Your task to perform on an android device: Add "alienware aurora" to the cart on amazon Image 0: 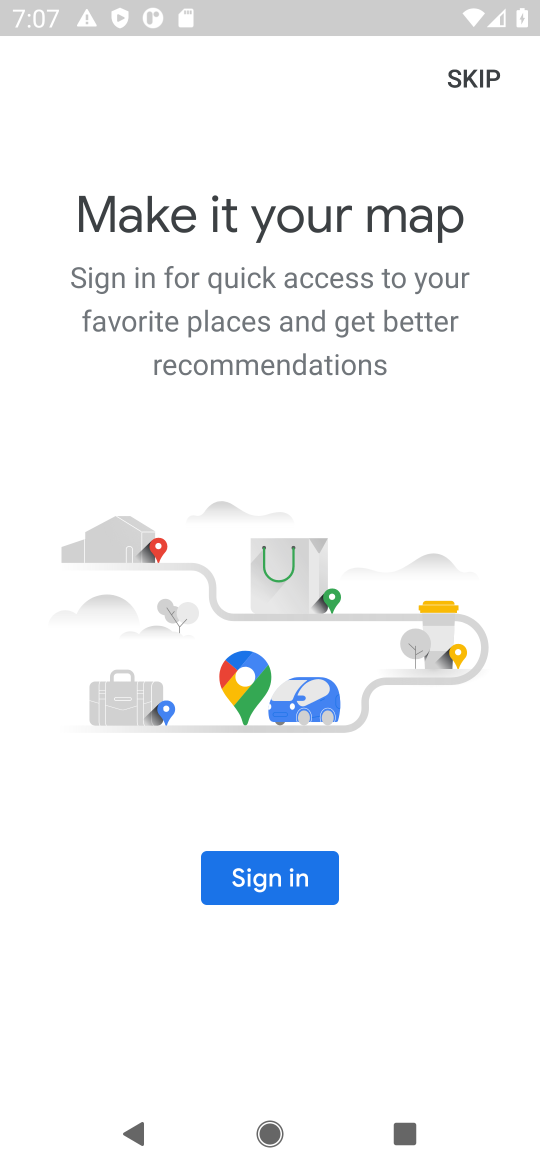
Step 0: press home button
Your task to perform on an android device: Add "alienware aurora" to the cart on amazon Image 1: 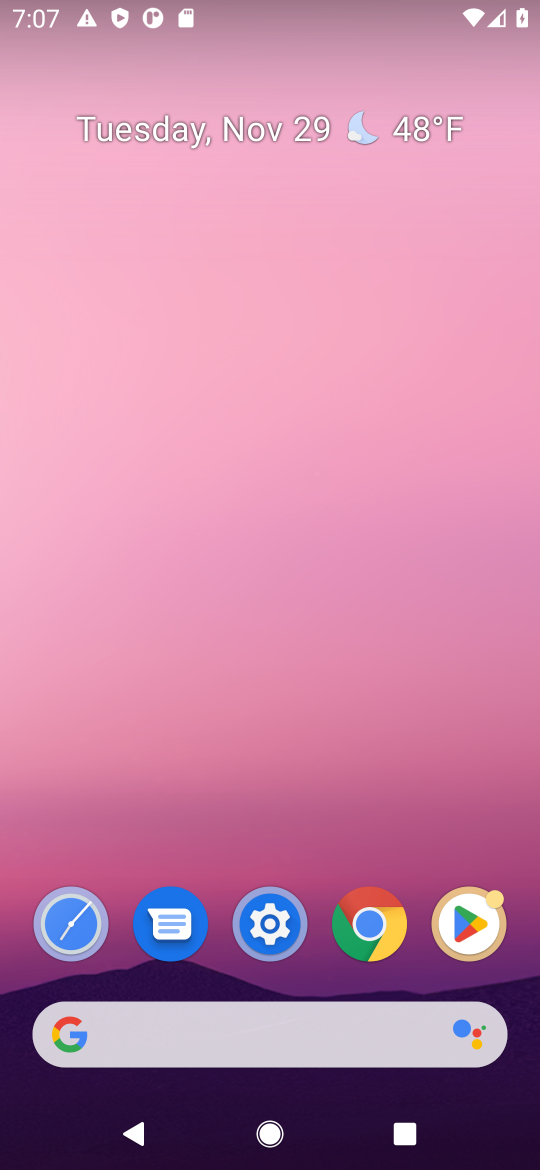
Step 1: click (326, 1026)
Your task to perform on an android device: Add "alienware aurora" to the cart on amazon Image 2: 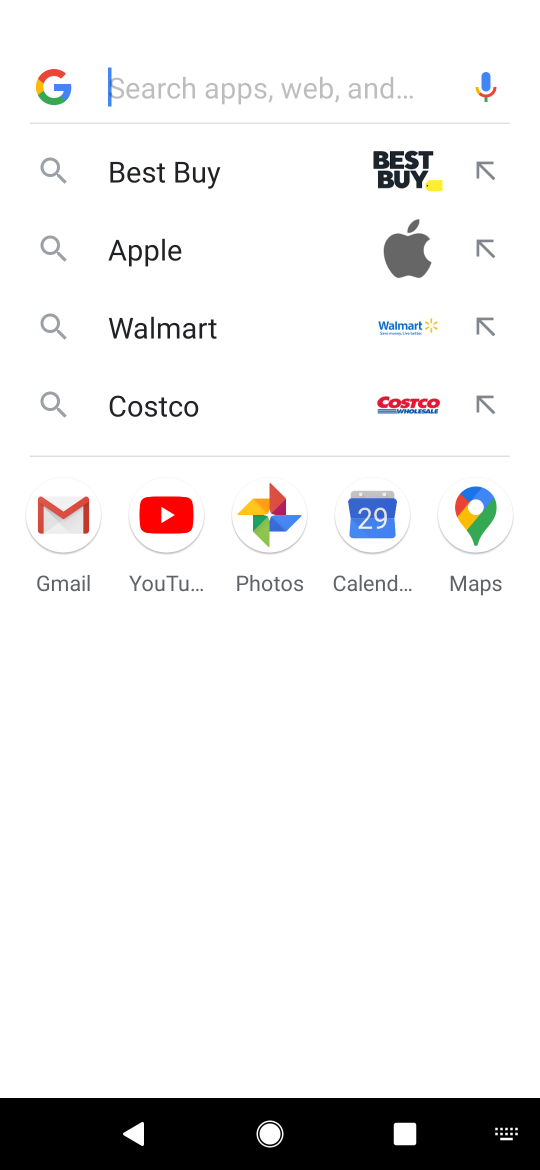
Step 2: type "amazon"
Your task to perform on an android device: Add "alienware aurora" to the cart on amazon Image 3: 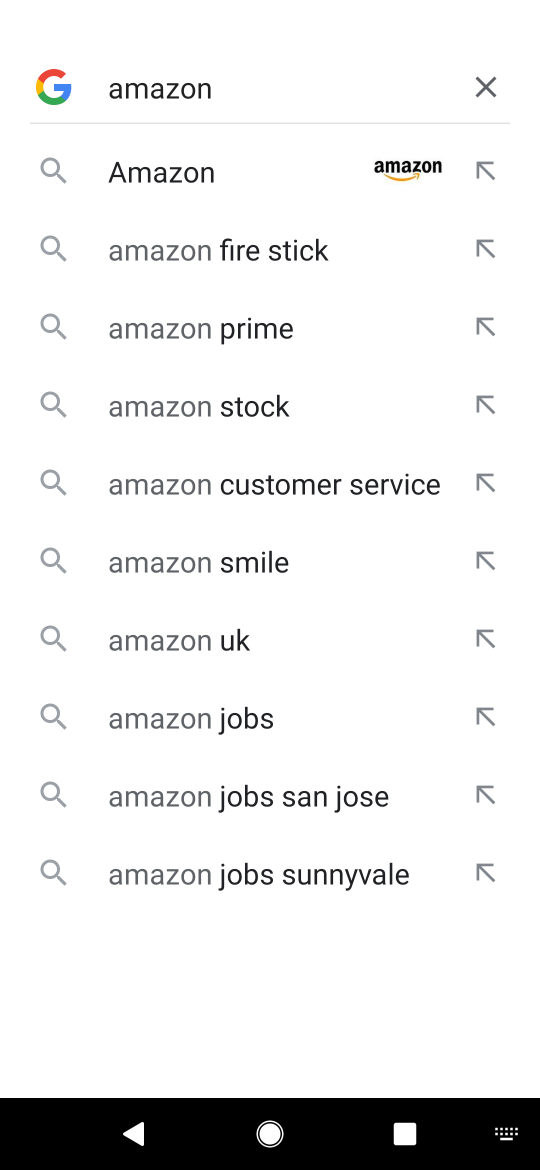
Step 3: click (228, 188)
Your task to perform on an android device: Add "alienware aurora" to the cart on amazon Image 4: 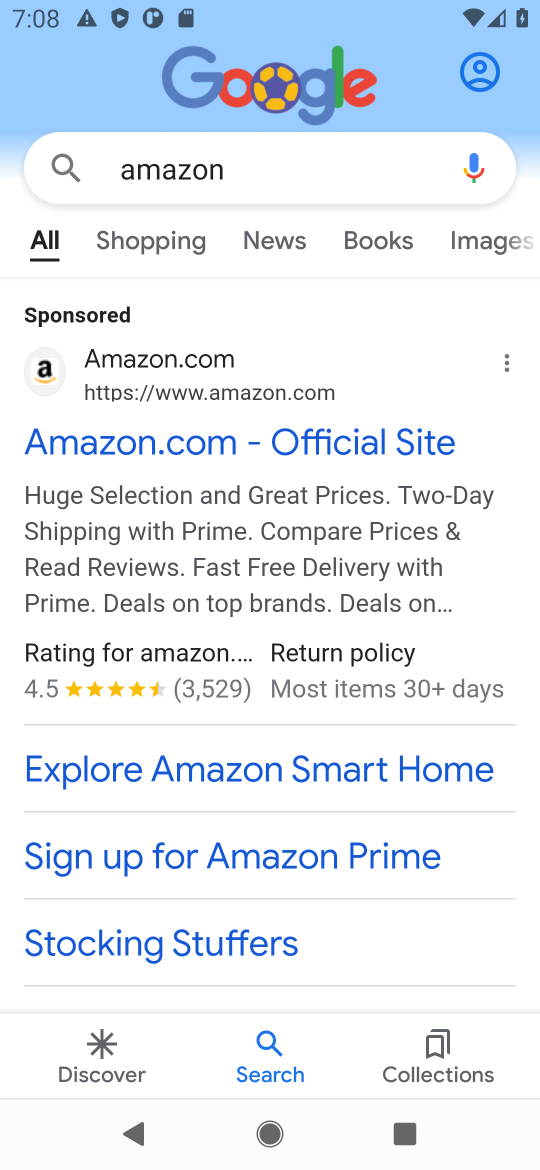
Step 4: click (107, 423)
Your task to perform on an android device: Add "alienware aurora" to the cart on amazon Image 5: 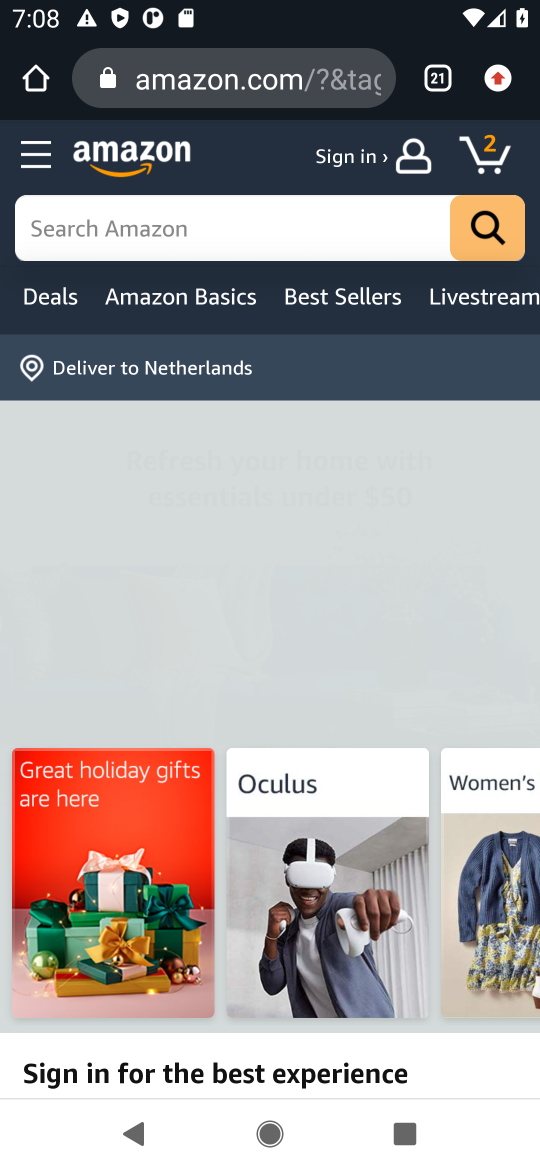
Step 5: click (125, 246)
Your task to perform on an android device: Add "alienware aurora" to the cart on amazon Image 6: 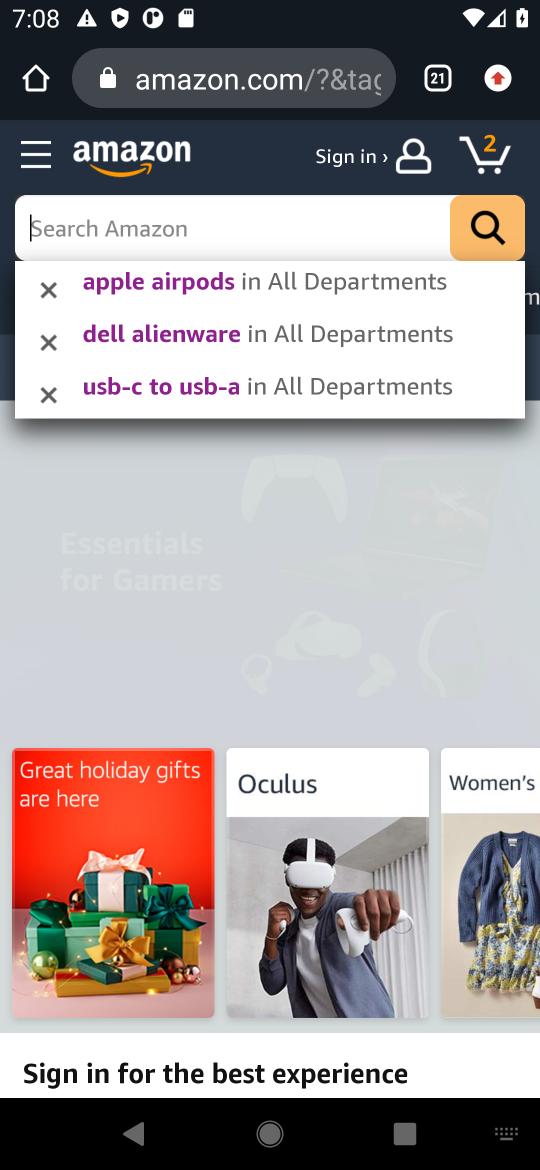
Step 6: type "alienware aura"
Your task to perform on an android device: Add "alienware aurora" to the cart on amazon Image 7: 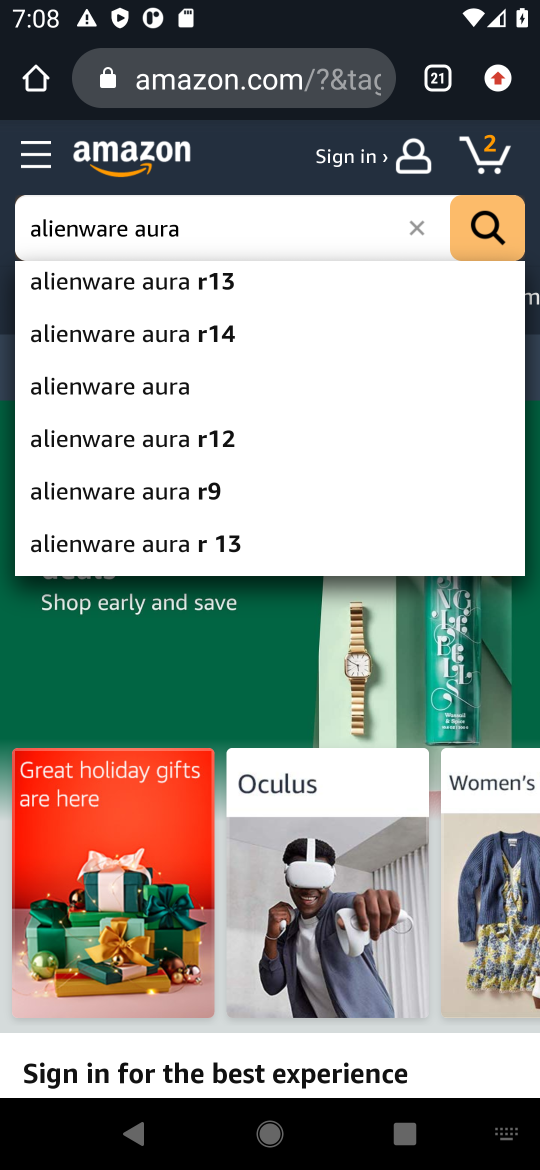
Step 7: click (486, 250)
Your task to perform on an android device: Add "alienware aurora" to the cart on amazon Image 8: 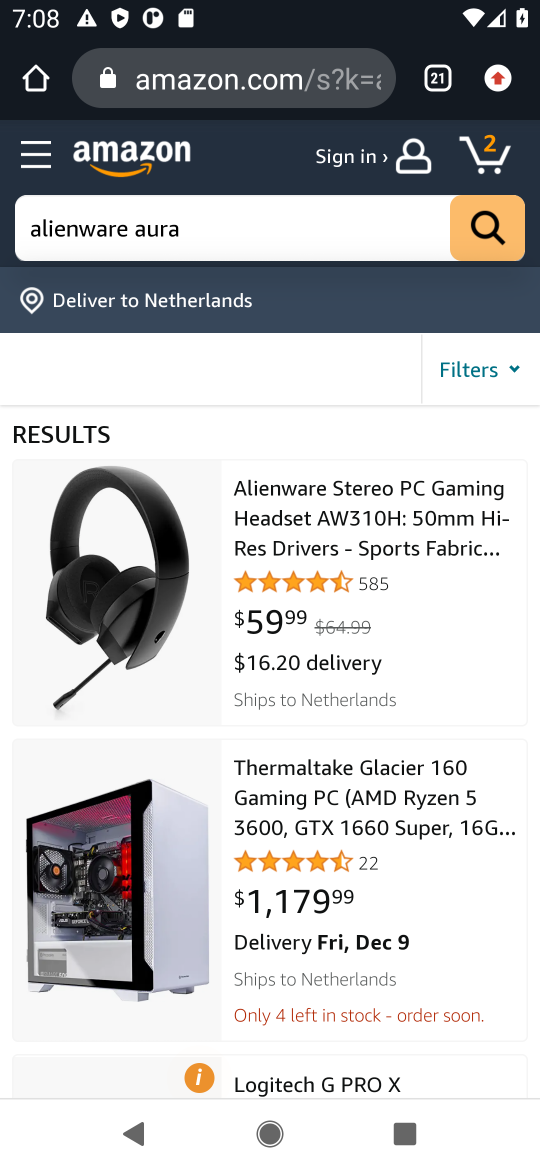
Step 8: click (333, 510)
Your task to perform on an android device: Add "alienware aurora" to the cart on amazon Image 9: 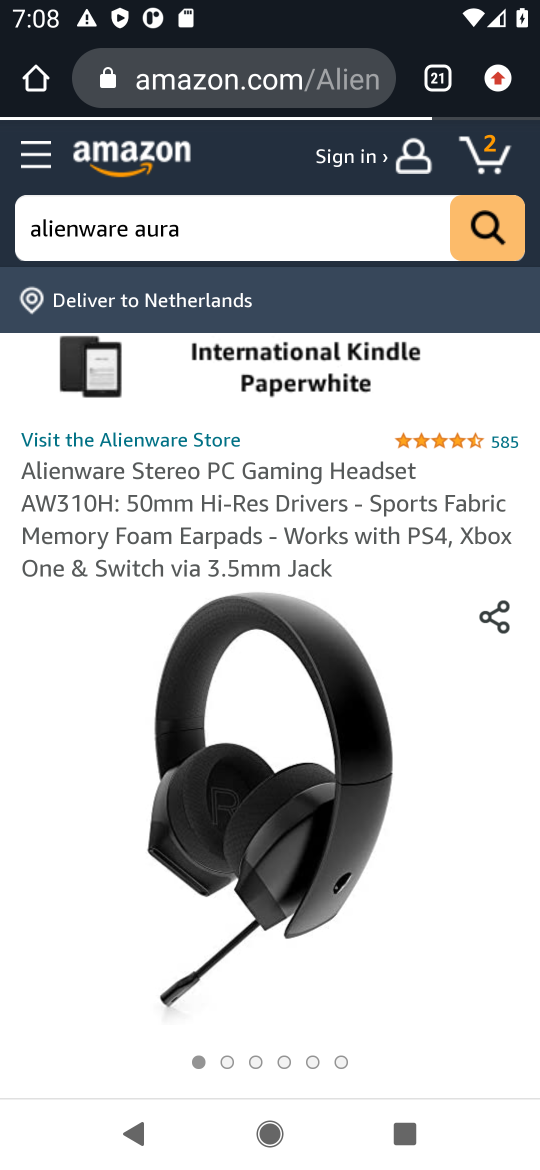
Step 9: drag from (465, 1013) to (401, 656)
Your task to perform on an android device: Add "alienware aurora" to the cart on amazon Image 10: 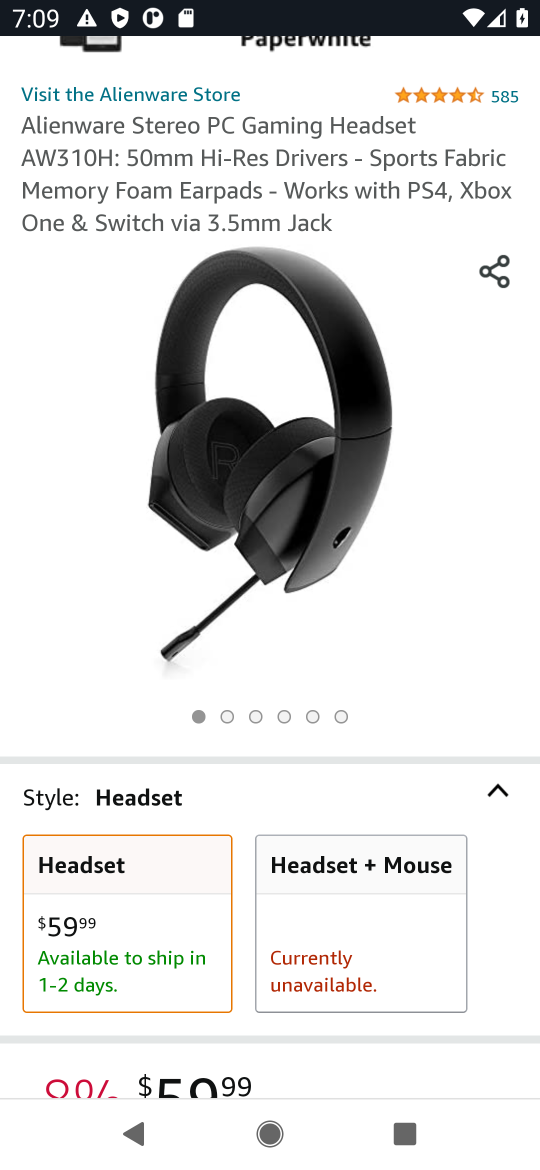
Step 10: drag from (497, 984) to (371, 425)
Your task to perform on an android device: Add "alienware aurora" to the cart on amazon Image 11: 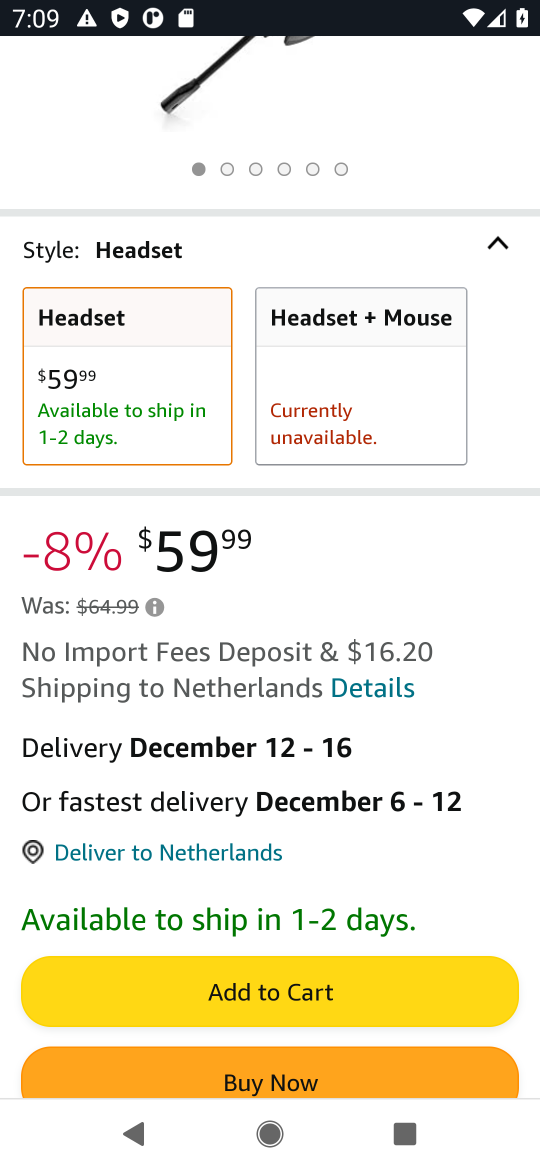
Step 11: click (426, 995)
Your task to perform on an android device: Add "alienware aurora" to the cart on amazon Image 12: 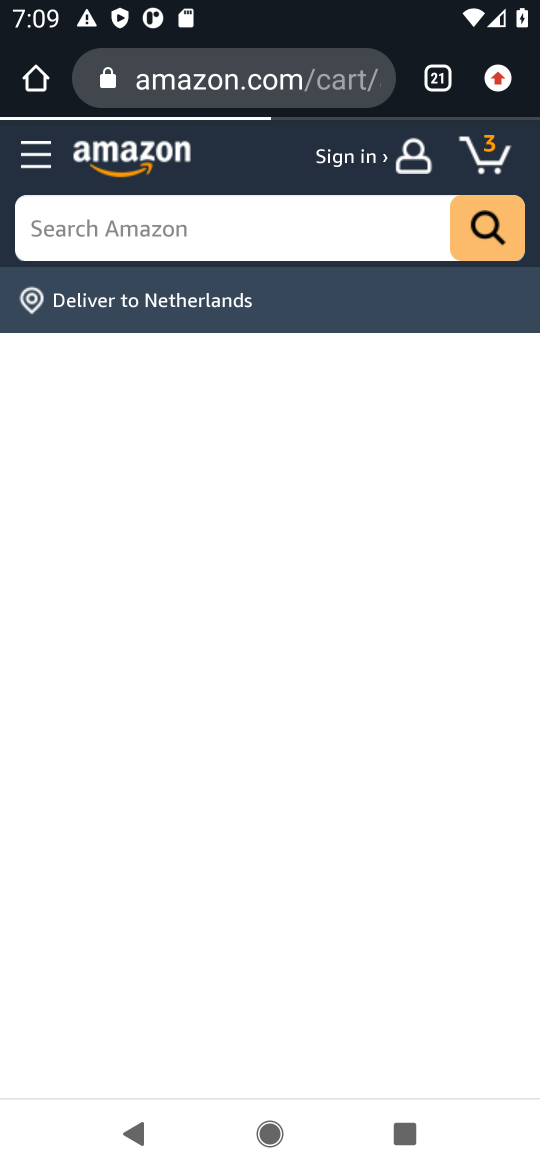
Step 12: task complete